Your task to perform on an android device: open device folders in google photos Image 0: 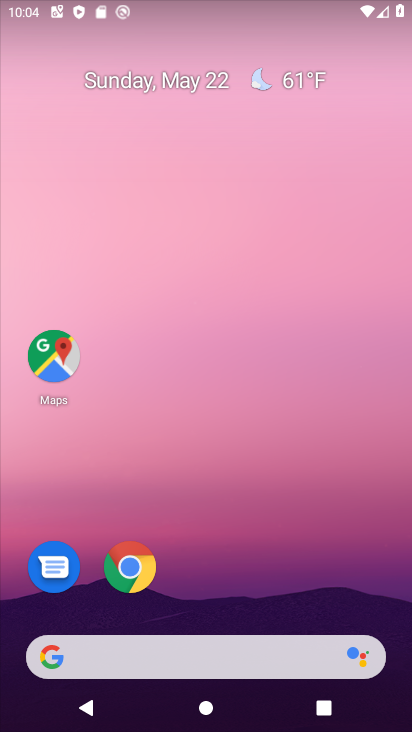
Step 0: drag from (239, 627) to (103, 23)
Your task to perform on an android device: open device folders in google photos Image 1: 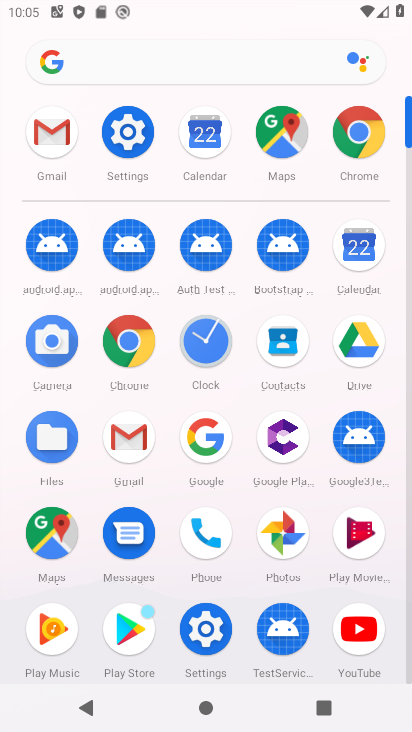
Step 1: click (268, 529)
Your task to perform on an android device: open device folders in google photos Image 2: 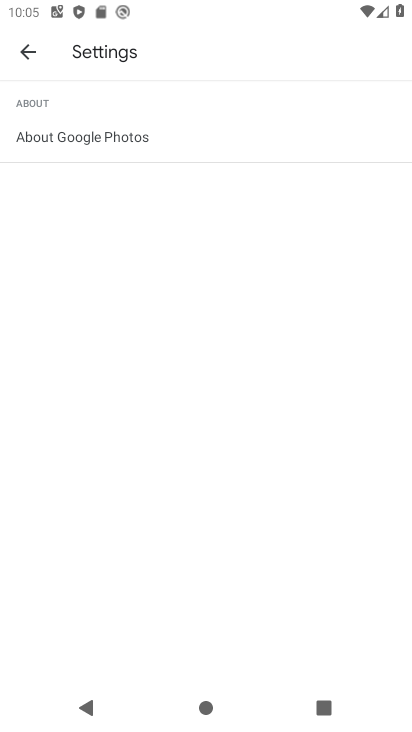
Step 2: click (20, 43)
Your task to perform on an android device: open device folders in google photos Image 3: 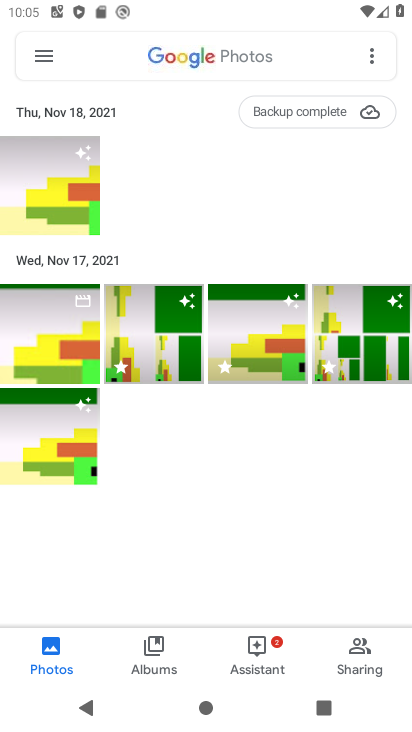
Step 3: click (36, 51)
Your task to perform on an android device: open device folders in google photos Image 4: 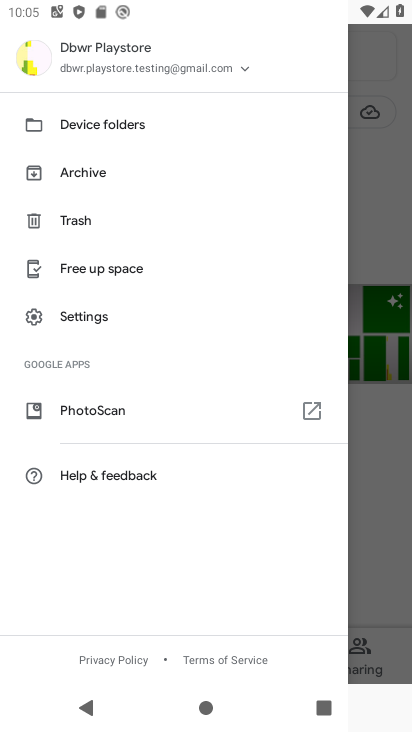
Step 4: click (70, 109)
Your task to perform on an android device: open device folders in google photos Image 5: 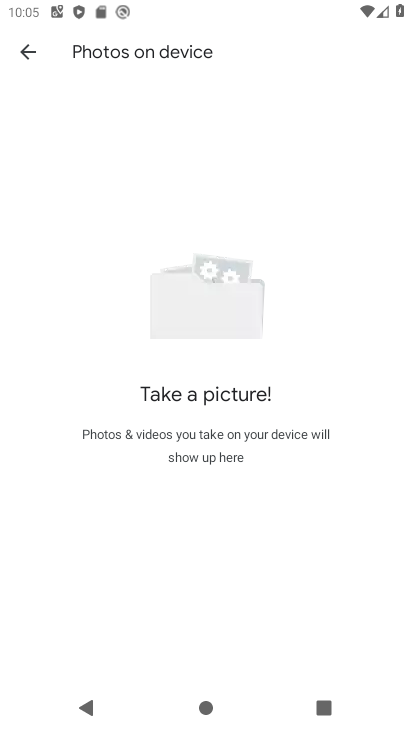
Step 5: task complete